Your task to perform on an android device: Open Reddit.com Image 0: 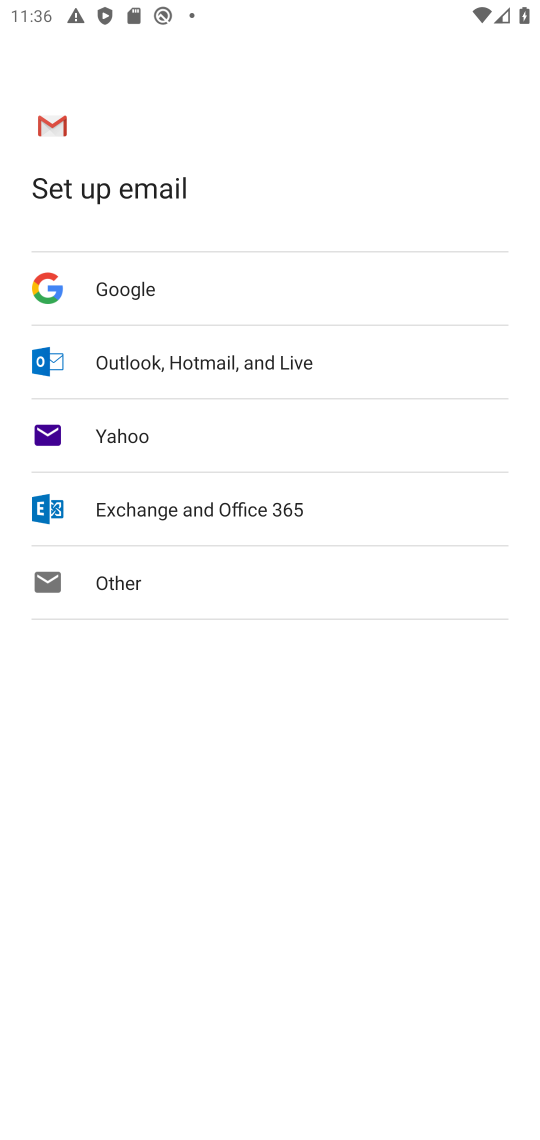
Step 0: press home button
Your task to perform on an android device: Open Reddit.com Image 1: 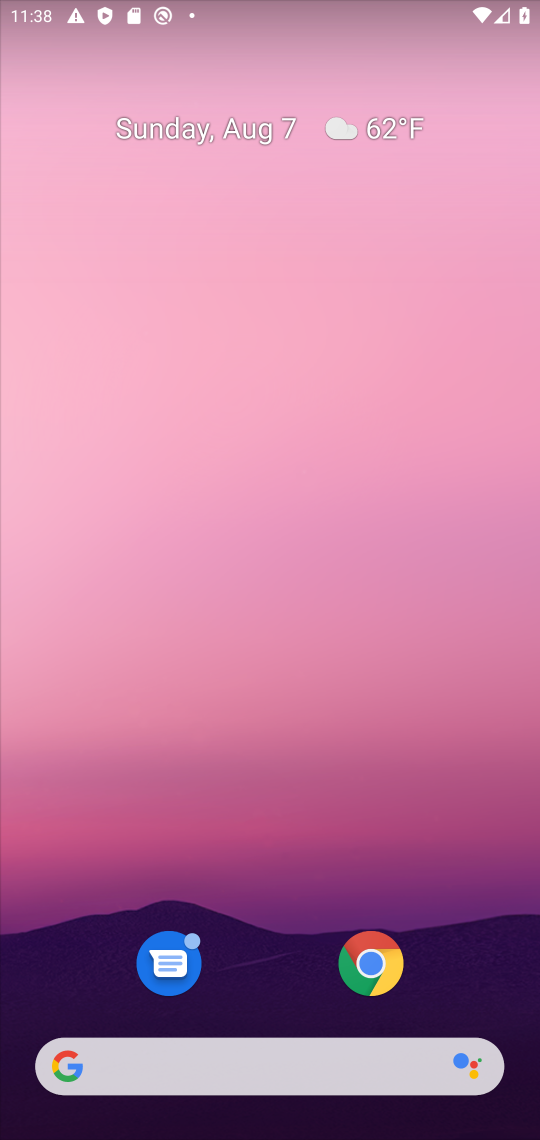
Step 1: drag from (492, 980) to (299, 7)
Your task to perform on an android device: Open Reddit.com Image 2: 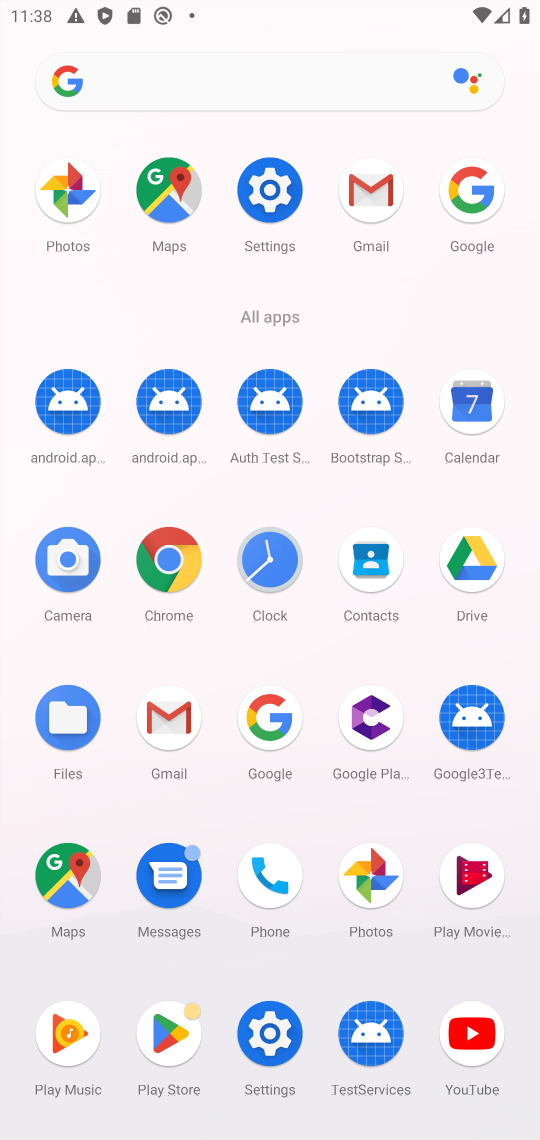
Step 2: click (255, 710)
Your task to perform on an android device: Open Reddit.com Image 3: 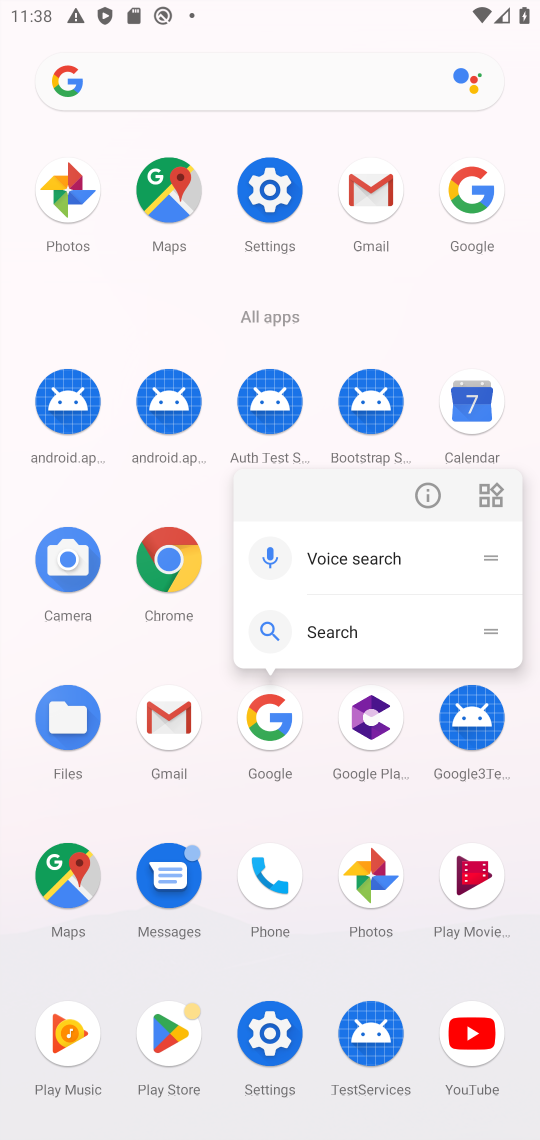
Step 3: click (255, 710)
Your task to perform on an android device: Open Reddit.com Image 4: 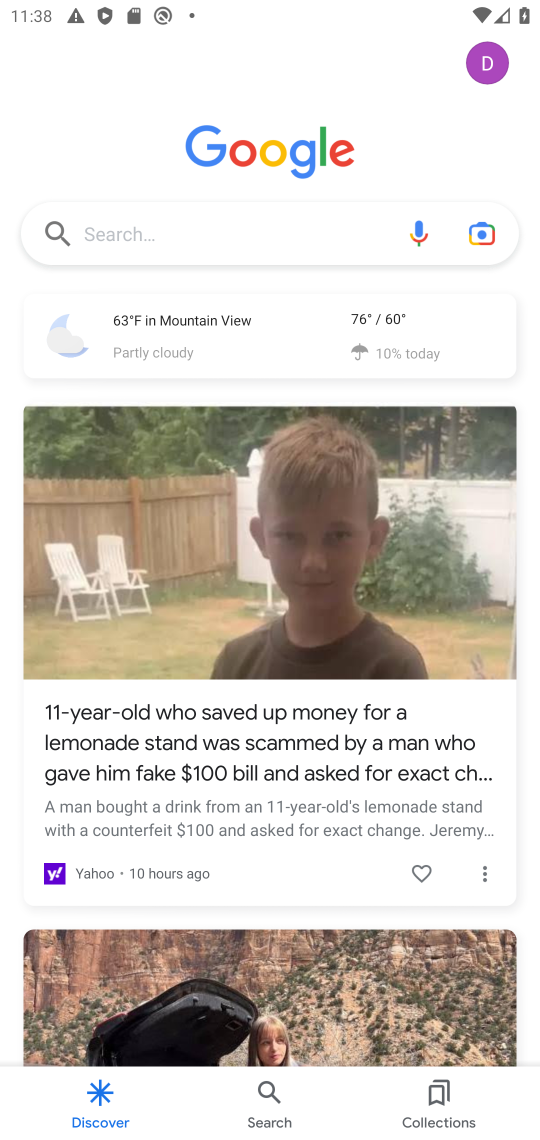
Step 4: click (184, 243)
Your task to perform on an android device: Open Reddit.com Image 5: 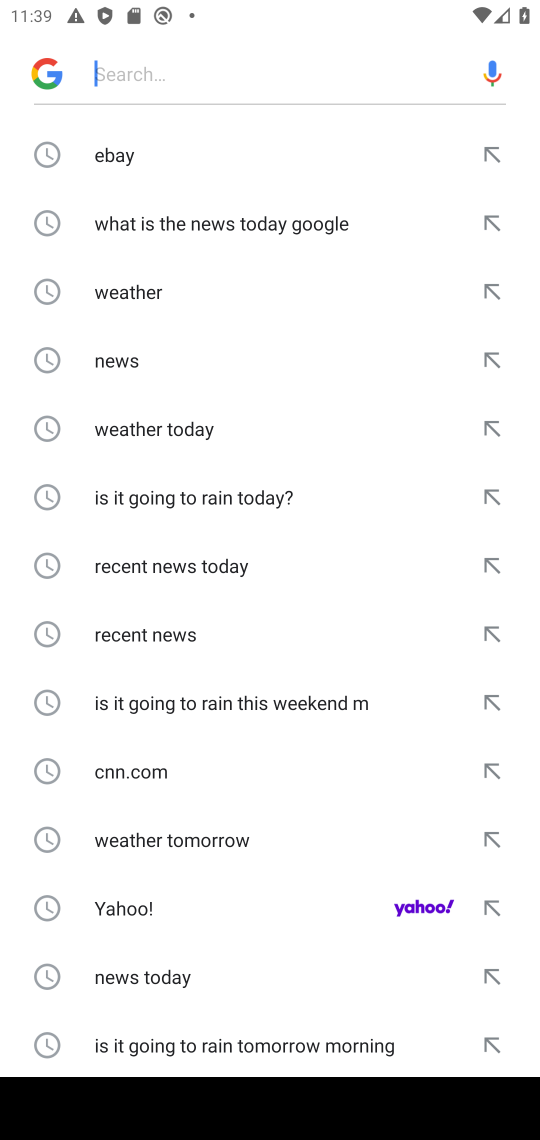
Step 5: type "Reddit.com"
Your task to perform on an android device: Open Reddit.com Image 6: 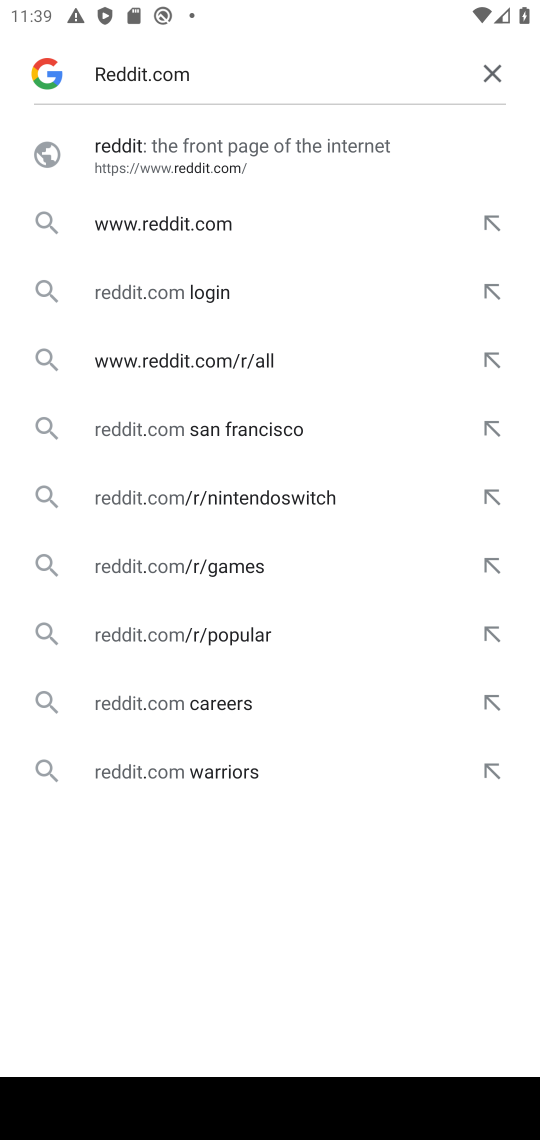
Step 6: click (167, 180)
Your task to perform on an android device: Open Reddit.com Image 7: 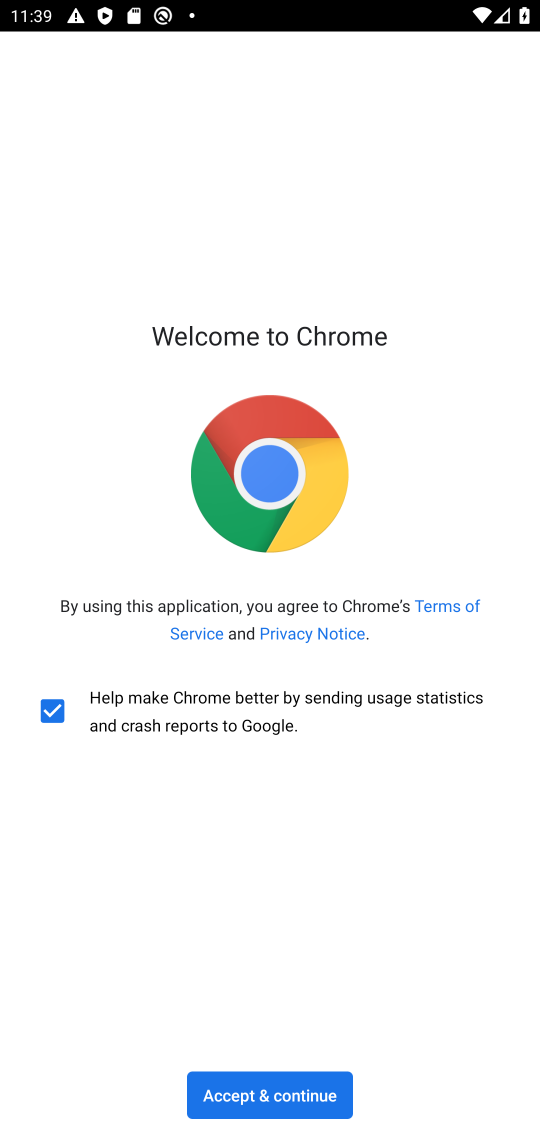
Step 7: click (286, 1095)
Your task to perform on an android device: Open Reddit.com Image 8: 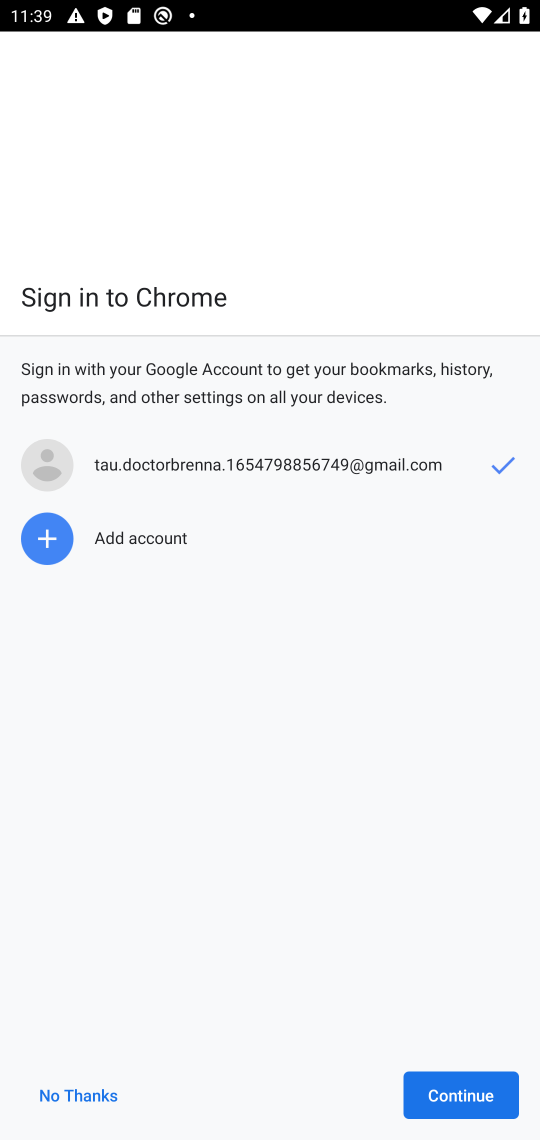
Step 8: click (444, 1077)
Your task to perform on an android device: Open Reddit.com Image 9: 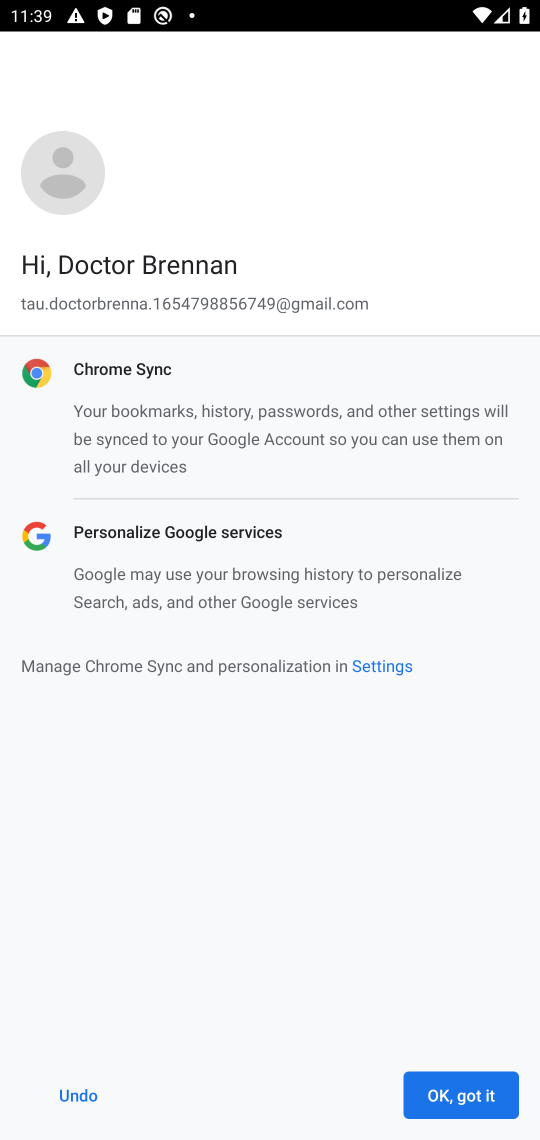
Step 9: click (468, 1093)
Your task to perform on an android device: Open Reddit.com Image 10: 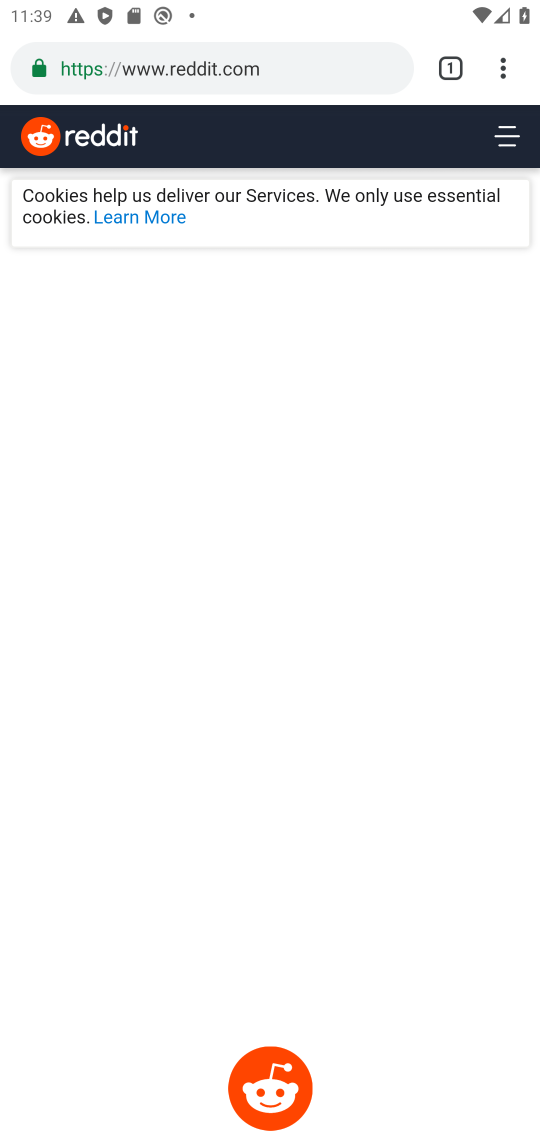
Step 10: task complete